Your task to perform on an android device: Open accessibility settings Image 0: 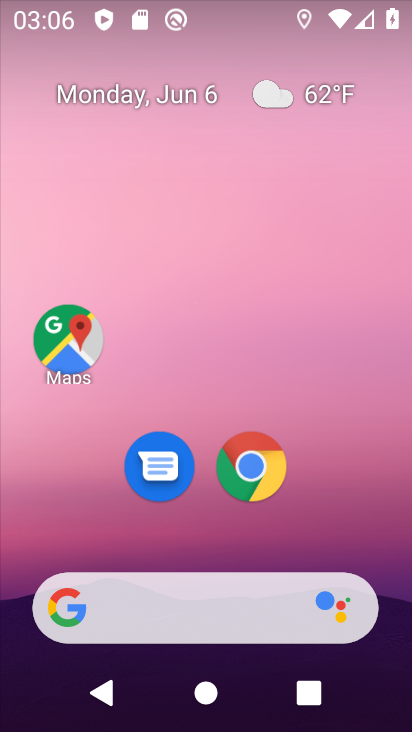
Step 0: drag from (343, 442) to (332, 41)
Your task to perform on an android device: Open accessibility settings Image 1: 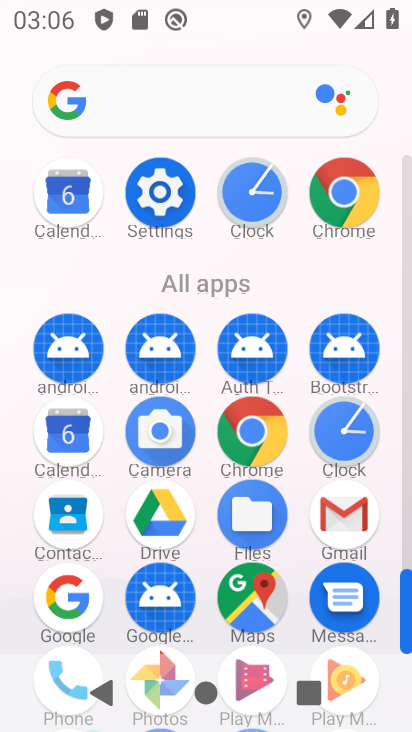
Step 1: click (155, 192)
Your task to perform on an android device: Open accessibility settings Image 2: 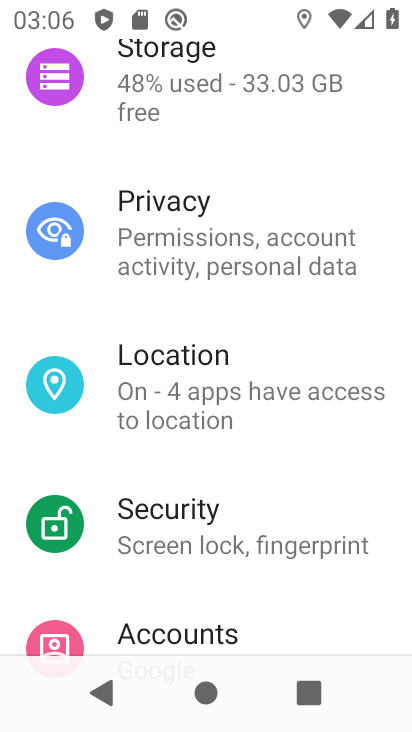
Step 2: drag from (241, 510) to (301, 116)
Your task to perform on an android device: Open accessibility settings Image 3: 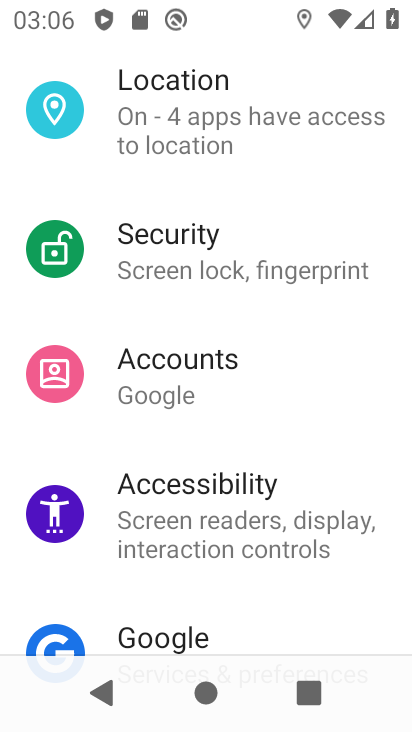
Step 3: click (227, 502)
Your task to perform on an android device: Open accessibility settings Image 4: 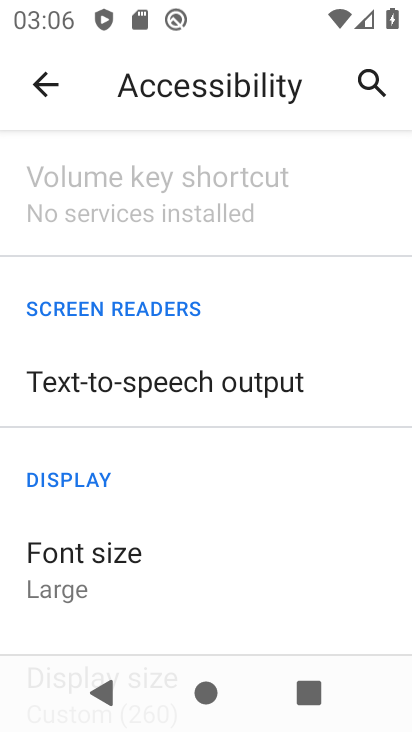
Step 4: task complete